Your task to perform on an android device: set an alarm Image 0: 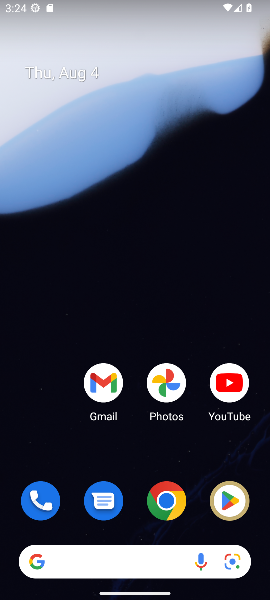
Step 0: drag from (198, 477) to (155, 185)
Your task to perform on an android device: set an alarm Image 1: 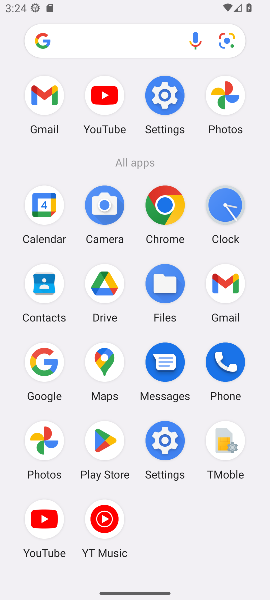
Step 1: click (227, 201)
Your task to perform on an android device: set an alarm Image 2: 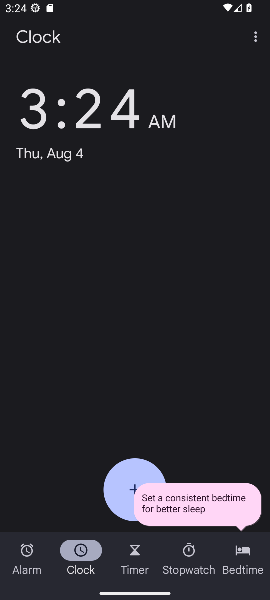
Step 2: click (28, 558)
Your task to perform on an android device: set an alarm Image 3: 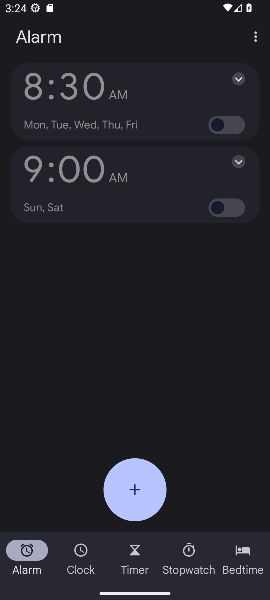
Step 3: click (150, 485)
Your task to perform on an android device: set an alarm Image 4: 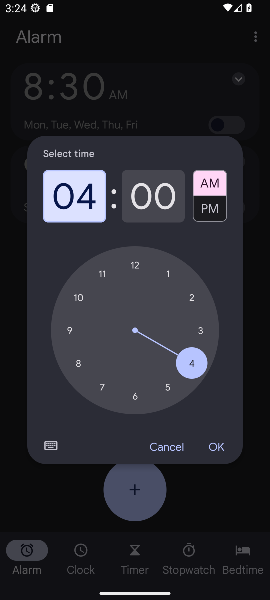
Step 4: click (227, 453)
Your task to perform on an android device: set an alarm Image 5: 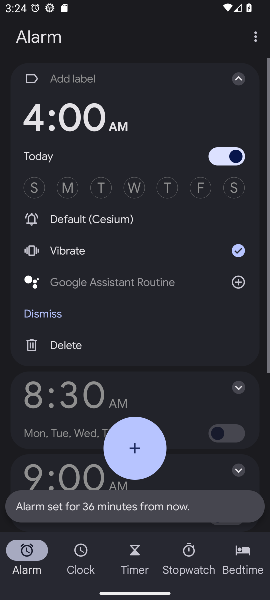
Step 5: task complete